Your task to perform on an android device: Show me popular videos on Youtube Image 0: 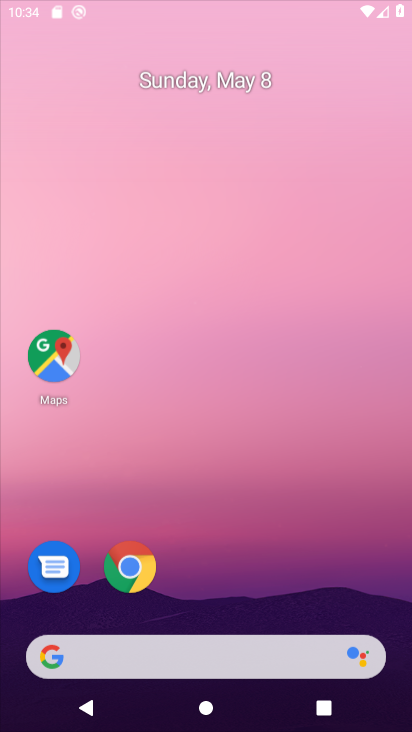
Step 0: click (154, 192)
Your task to perform on an android device: Show me popular videos on Youtube Image 1: 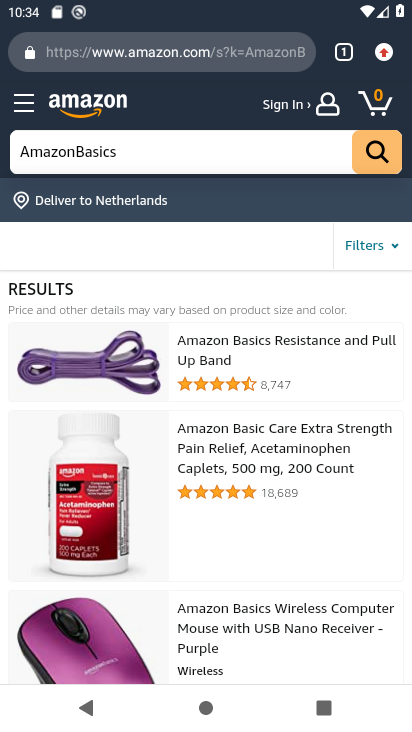
Step 1: press home button
Your task to perform on an android device: Show me popular videos on Youtube Image 2: 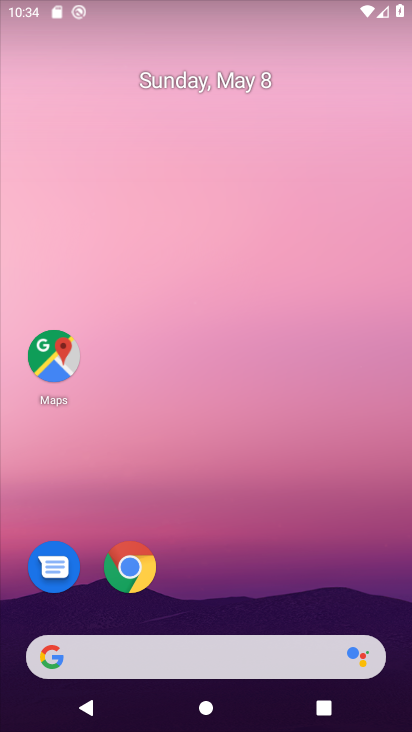
Step 2: drag from (358, 625) to (231, 26)
Your task to perform on an android device: Show me popular videos on Youtube Image 3: 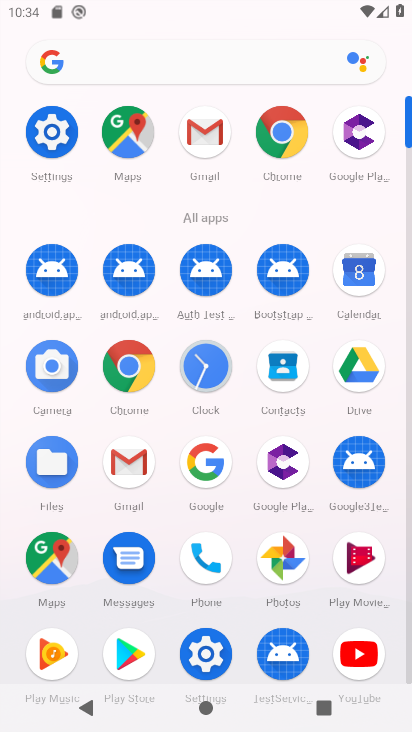
Step 3: click (362, 687)
Your task to perform on an android device: Show me popular videos on Youtube Image 4: 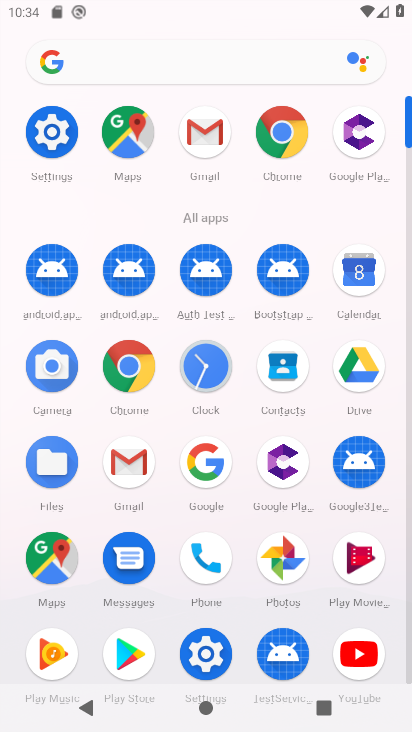
Step 4: click (359, 664)
Your task to perform on an android device: Show me popular videos on Youtube Image 5: 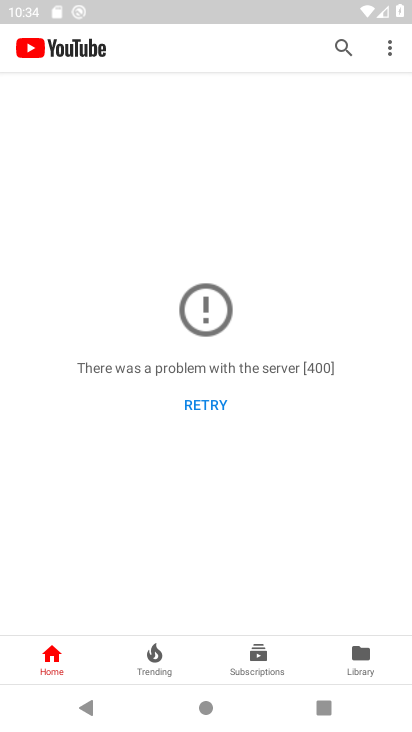
Step 5: click (356, 650)
Your task to perform on an android device: Show me popular videos on Youtube Image 6: 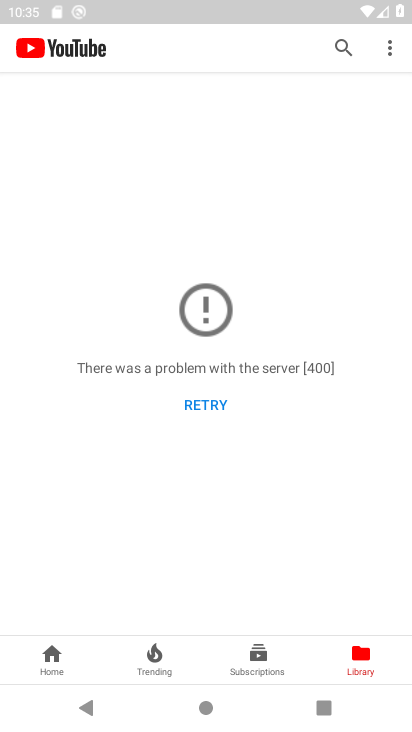
Step 6: task complete